Your task to perform on an android device: stop showing notifications on the lock screen Image 0: 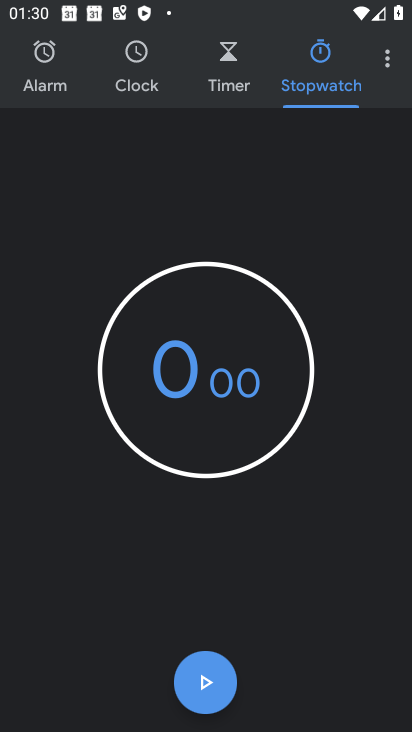
Step 0: press home button
Your task to perform on an android device: stop showing notifications on the lock screen Image 1: 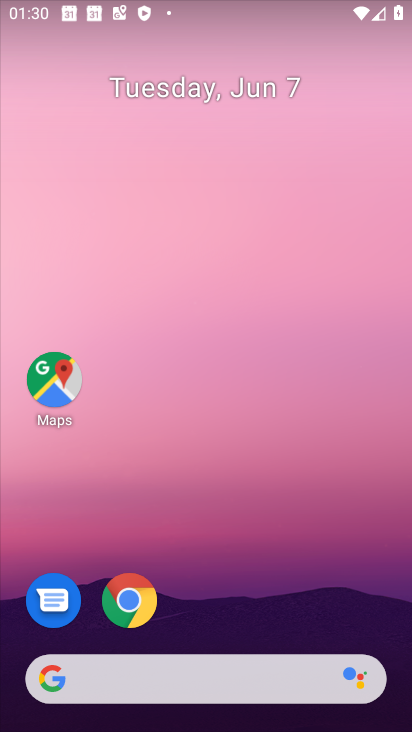
Step 1: drag from (242, 727) to (209, 152)
Your task to perform on an android device: stop showing notifications on the lock screen Image 2: 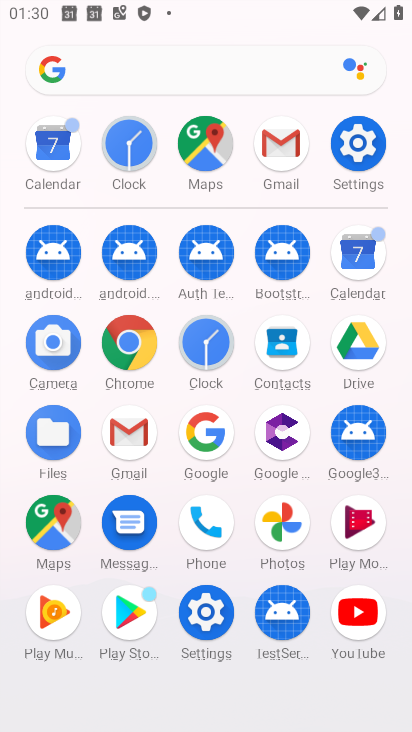
Step 2: click (360, 148)
Your task to perform on an android device: stop showing notifications on the lock screen Image 3: 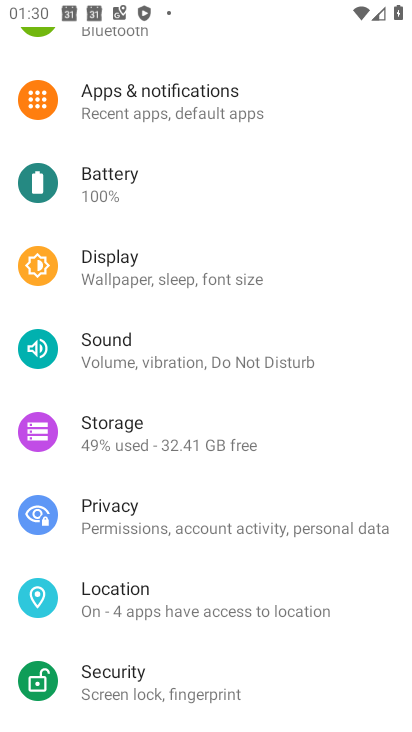
Step 3: click (130, 103)
Your task to perform on an android device: stop showing notifications on the lock screen Image 4: 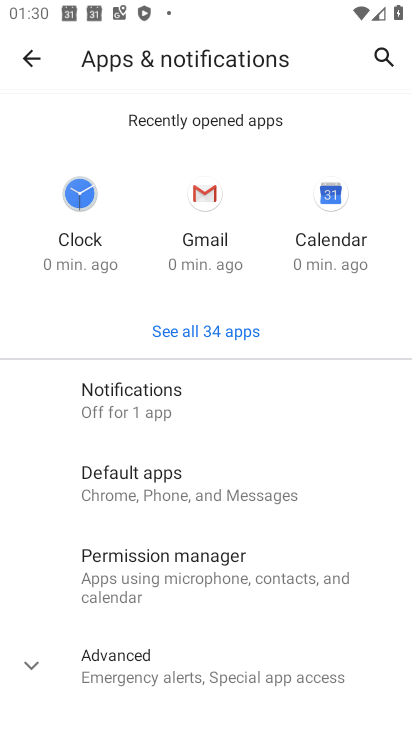
Step 4: click (132, 406)
Your task to perform on an android device: stop showing notifications on the lock screen Image 5: 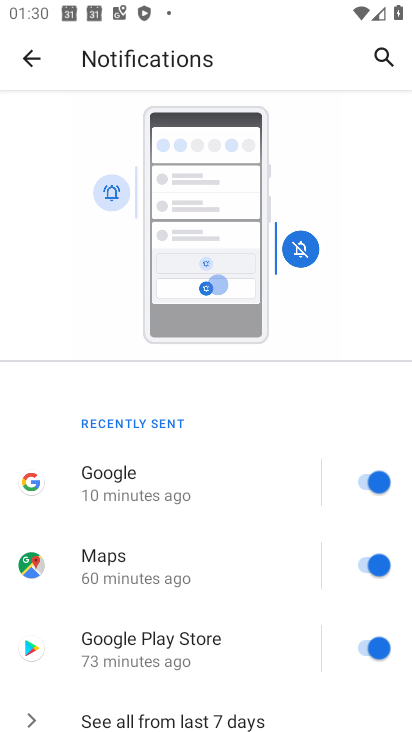
Step 5: task complete